Your task to perform on an android device: Open eBay Image 0: 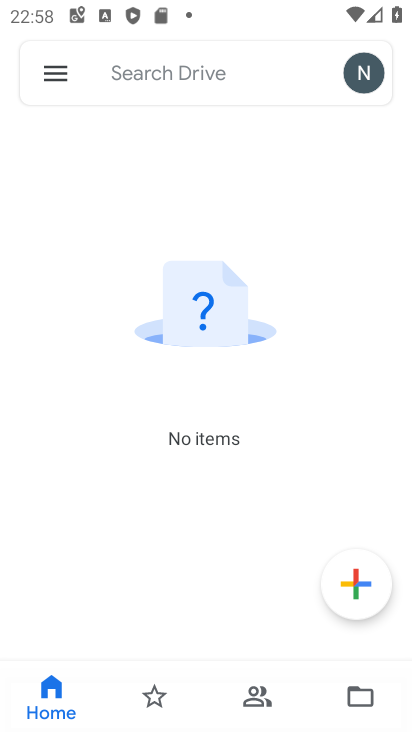
Step 0: press home button
Your task to perform on an android device: Open eBay Image 1: 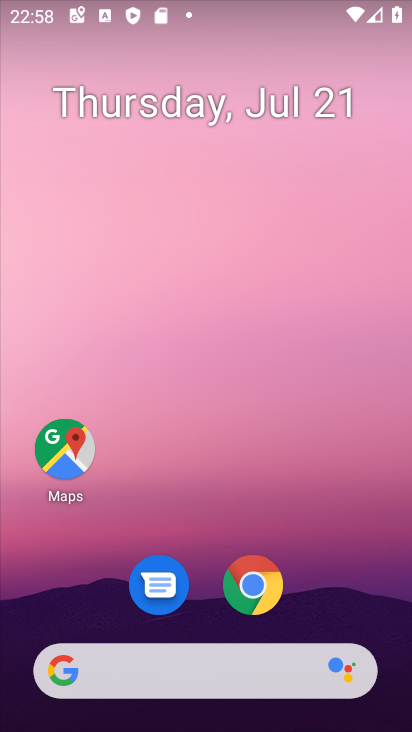
Step 1: click (221, 684)
Your task to perform on an android device: Open eBay Image 2: 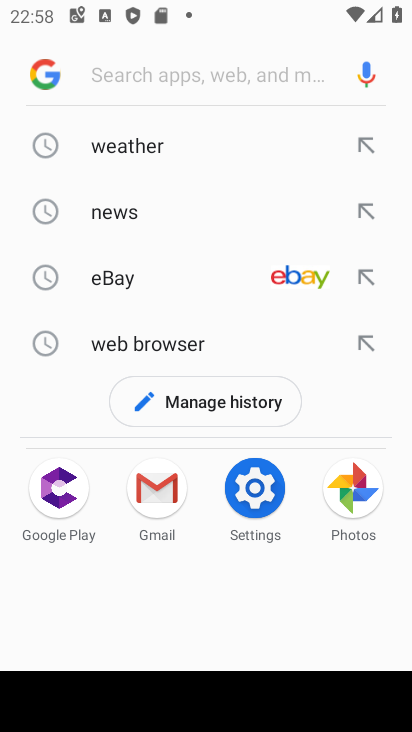
Step 2: click (301, 274)
Your task to perform on an android device: Open eBay Image 3: 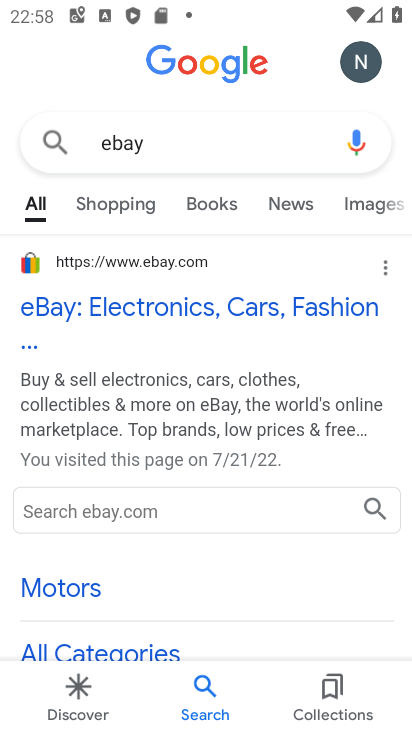
Step 3: click (150, 303)
Your task to perform on an android device: Open eBay Image 4: 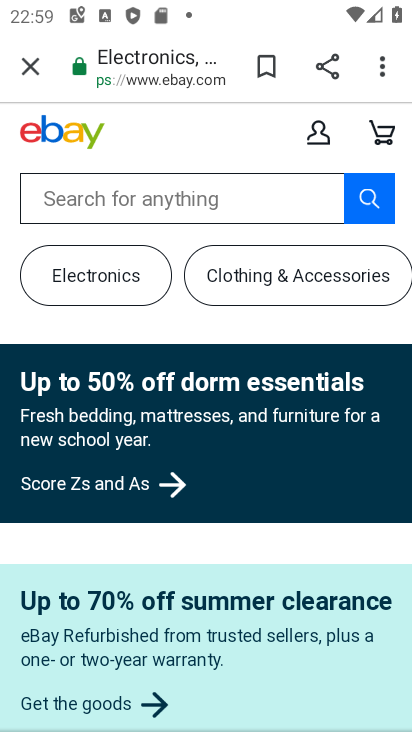
Step 4: task complete